Your task to perform on an android device: open the mobile data screen to see how much data has been used Image 0: 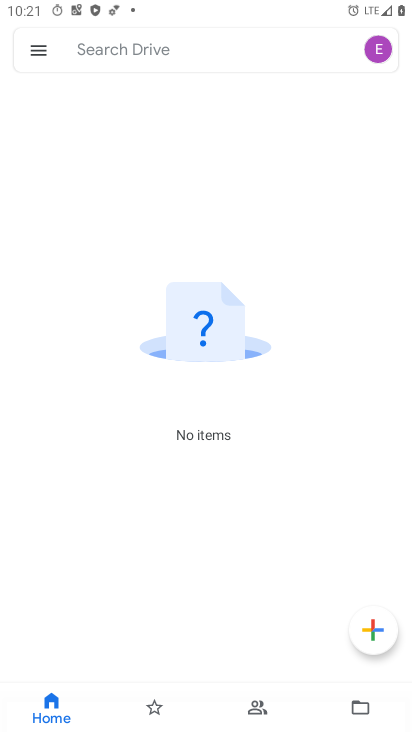
Step 0: press home button
Your task to perform on an android device: open the mobile data screen to see how much data has been used Image 1: 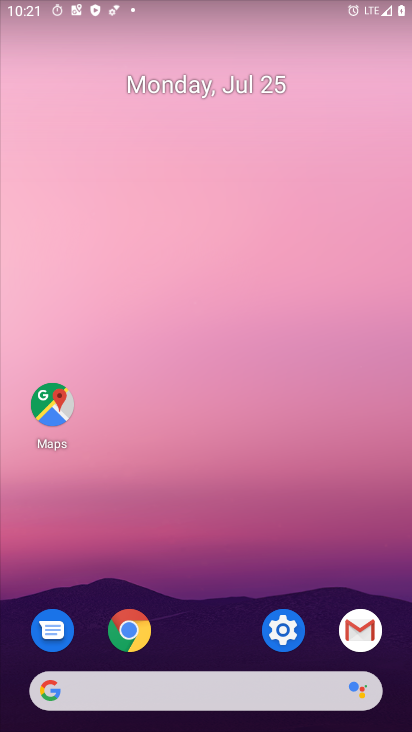
Step 1: click (288, 625)
Your task to perform on an android device: open the mobile data screen to see how much data has been used Image 2: 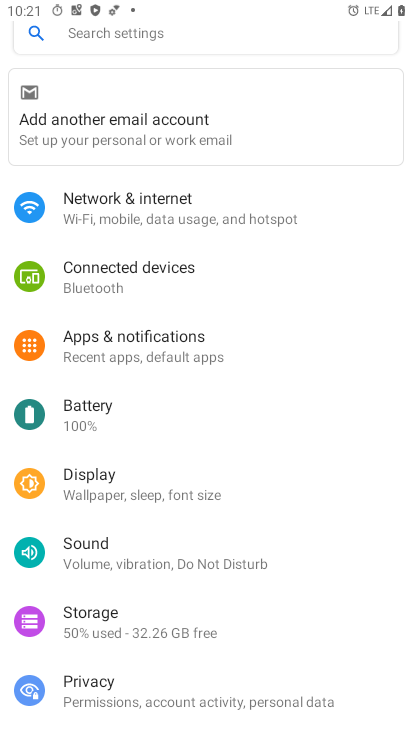
Step 2: click (125, 38)
Your task to perform on an android device: open the mobile data screen to see how much data has been used Image 3: 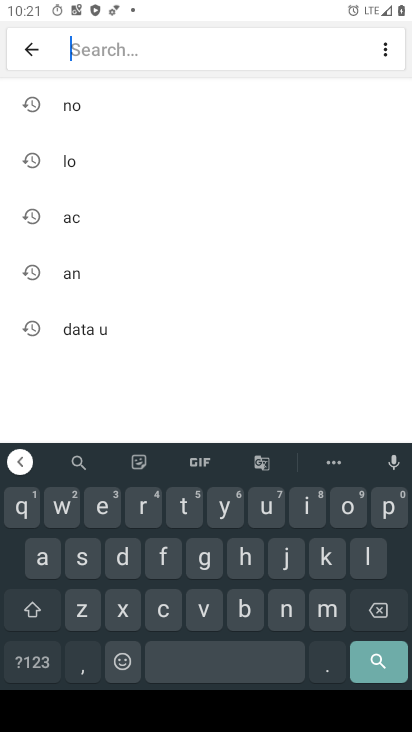
Step 3: click (98, 329)
Your task to perform on an android device: open the mobile data screen to see how much data has been used Image 4: 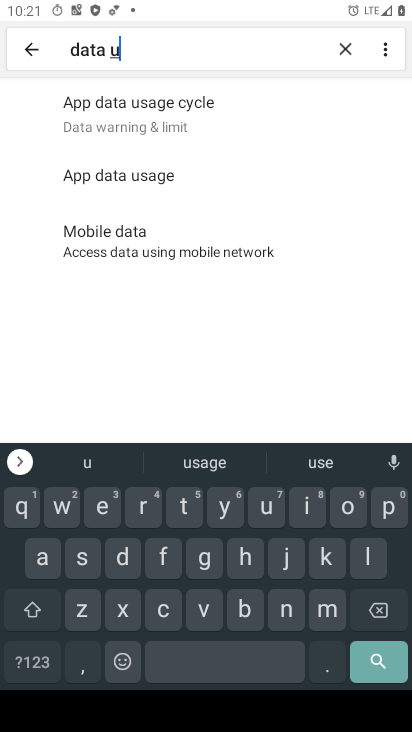
Step 4: click (106, 192)
Your task to perform on an android device: open the mobile data screen to see how much data has been used Image 5: 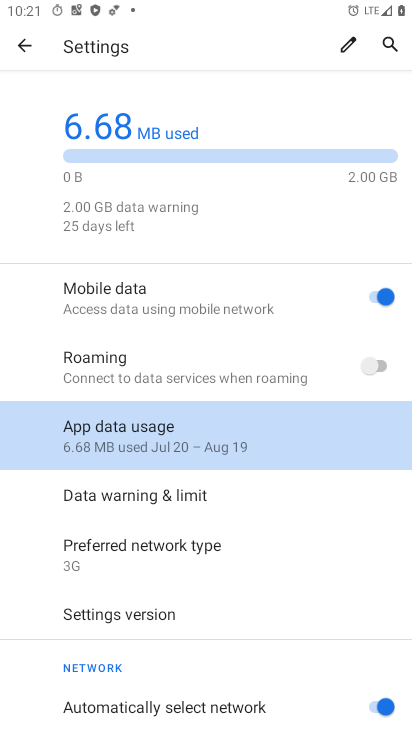
Step 5: click (148, 432)
Your task to perform on an android device: open the mobile data screen to see how much data has been used Image 6: 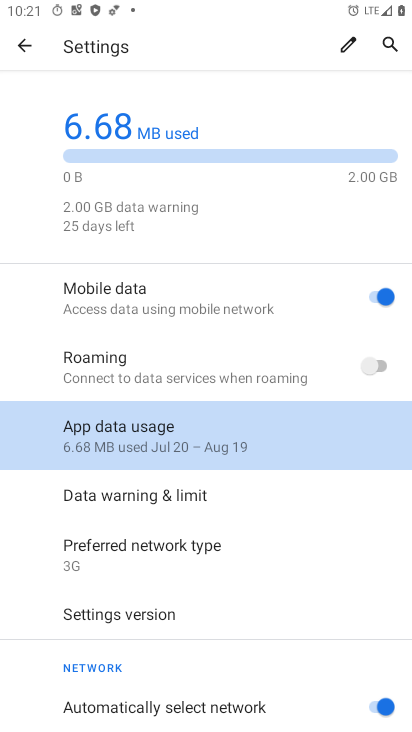
Step 6: click (159, 428)
Your task to perform on an android device: open the mobile data screen to see how much data has been used Image 7: 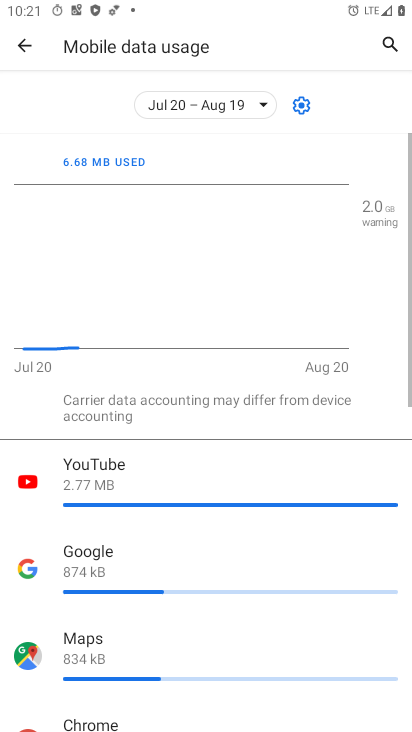
Step 7: task complete